Your task to perform on an android device: change text size in settings app Image 0: 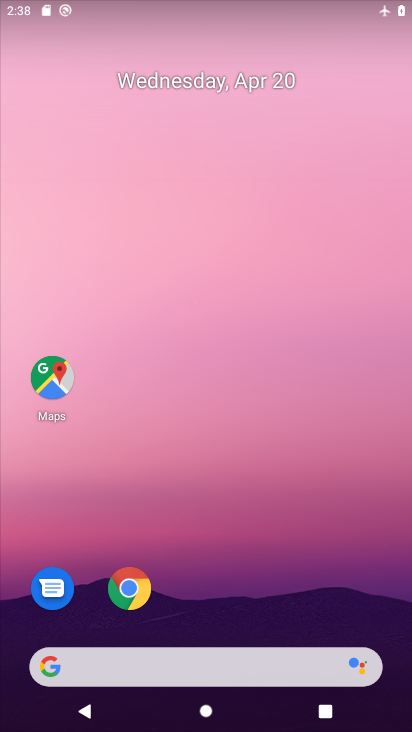
Step 0: drag from (217, 477) to (217, 36)
Your task to perform on an android device: change text size in settings app Image 1: 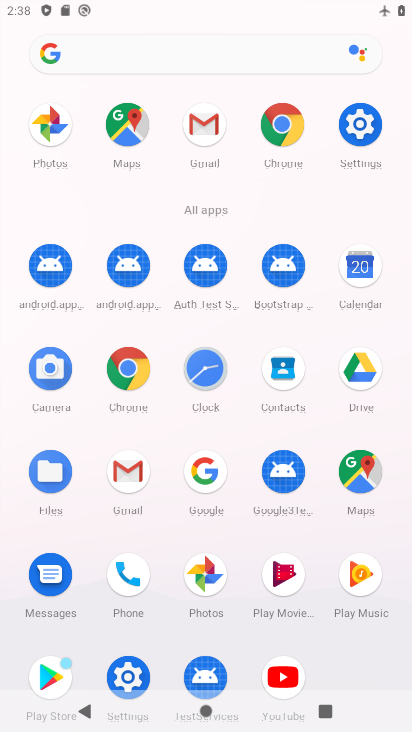
Step 1: click (360, 127)
Your task to perform on an android device: change text size in settings app Image 2: 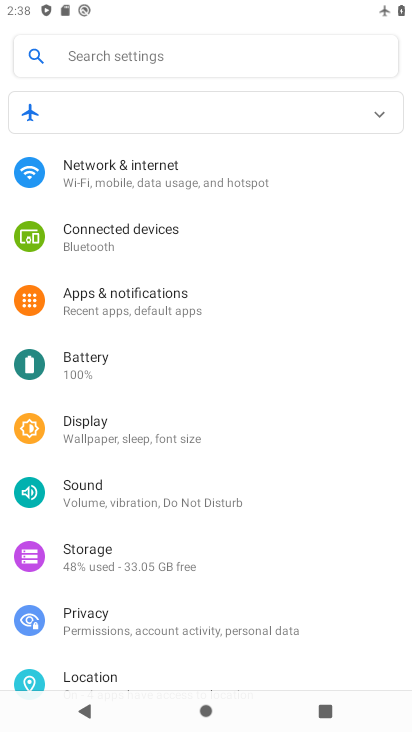
Step 2: click (149, 436)
Your task to perform on an android device: change text size in settings app Image 3: 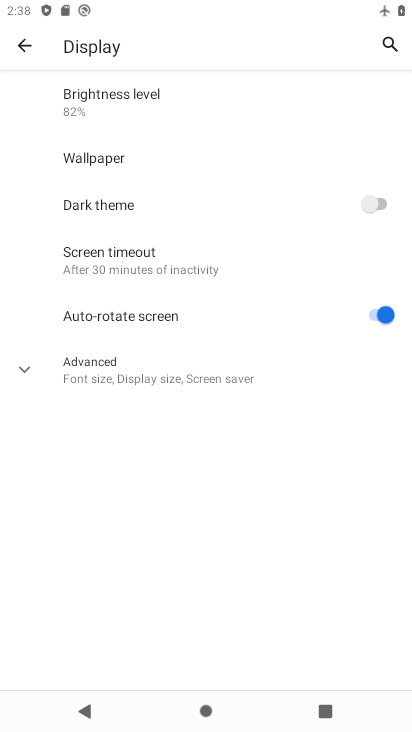
Step 3: click (142, 361)
Your task to perform on an android device: change text size in settings app Image 4: 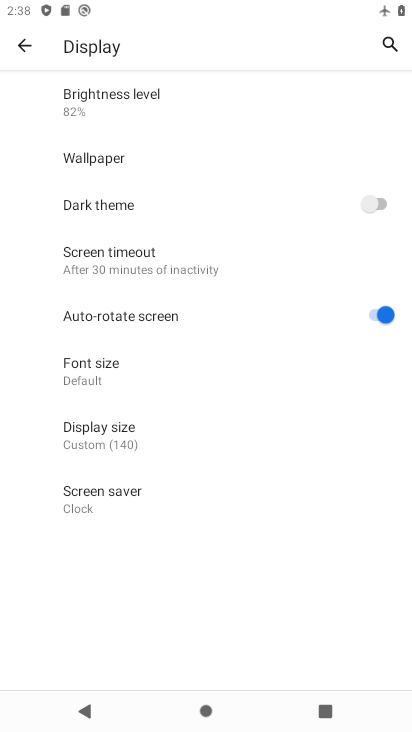
Step 4: click (120, 376)
Your task to perform on an android device: change text size in settings app Image 5: 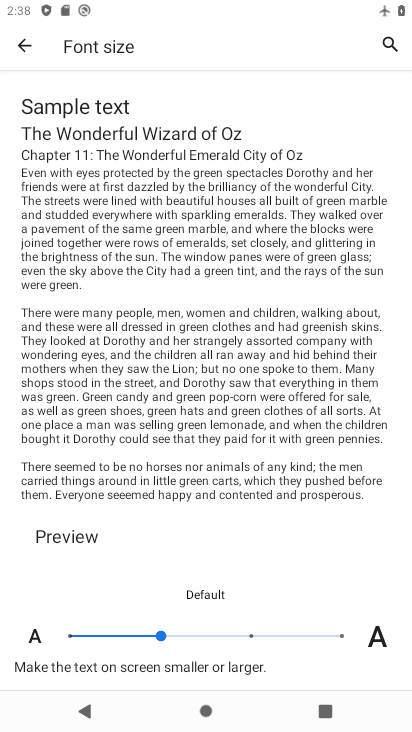
Step 5: click (340, 636)
Your task to perform on an android device: change text size in settings app Image 6: 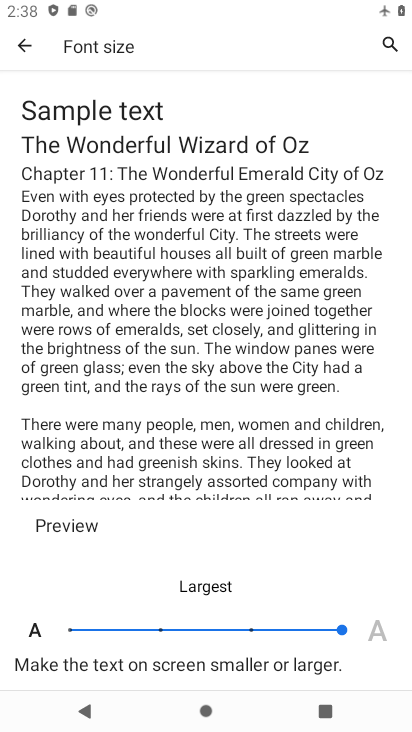
Step 6: task complete